Your task to perform on an android device: Open my contact list Image 0: 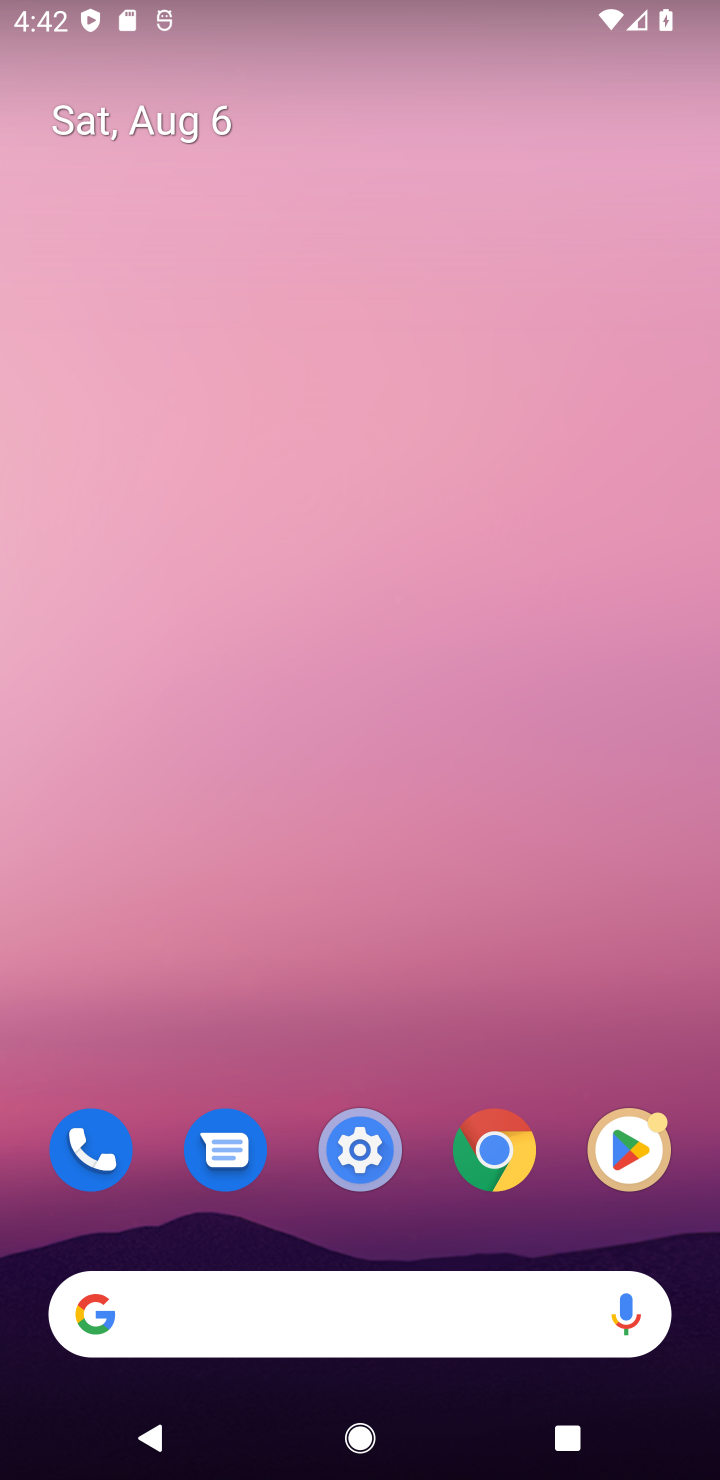
Step 0: drag from (347, 358) to (341, 183)
Your task to perform on an android device: Open my contact list Image 1: 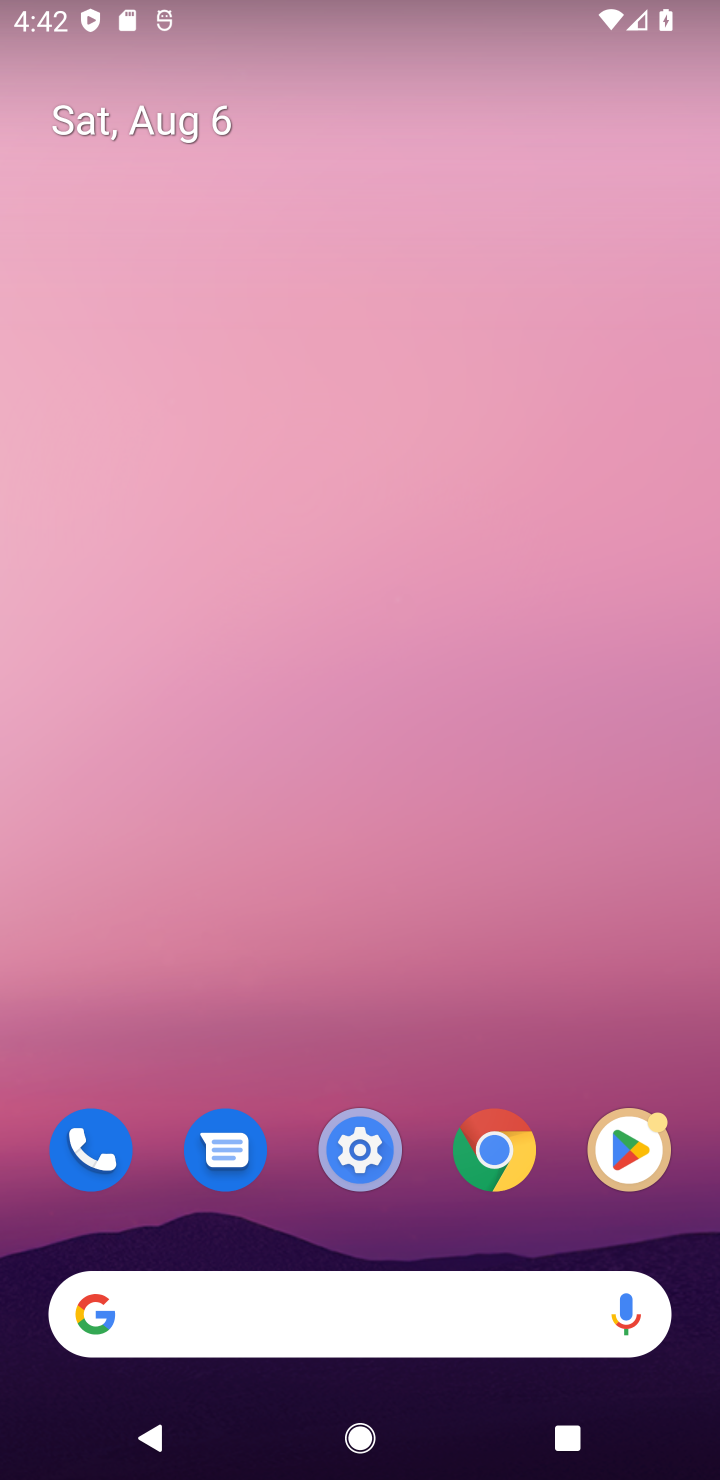
Step 1: drag from (390, 672) to (390, 126)
Your task to perform on an android device: Open my contact list Image 2: 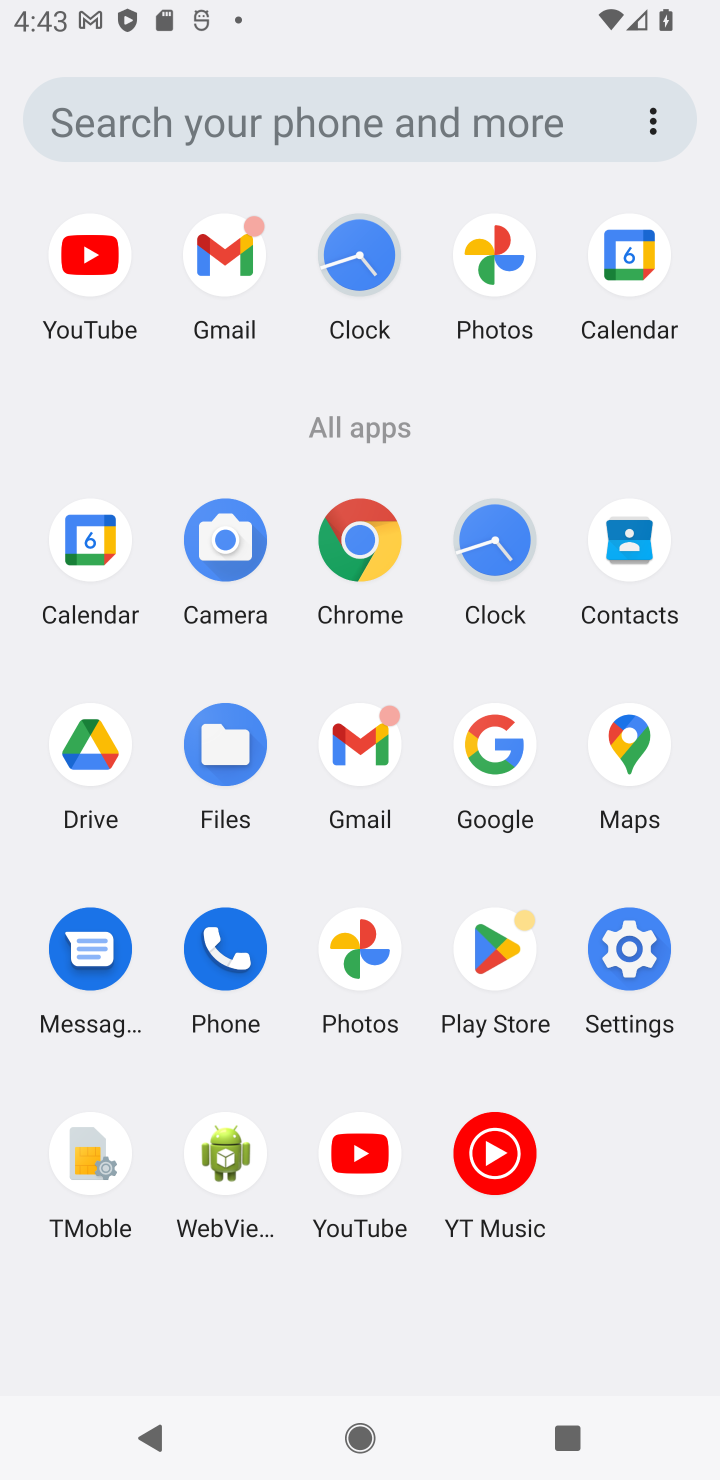
Step 2: click (651, 562)
Your task to perform on an android device: Open my contact list Image 3: 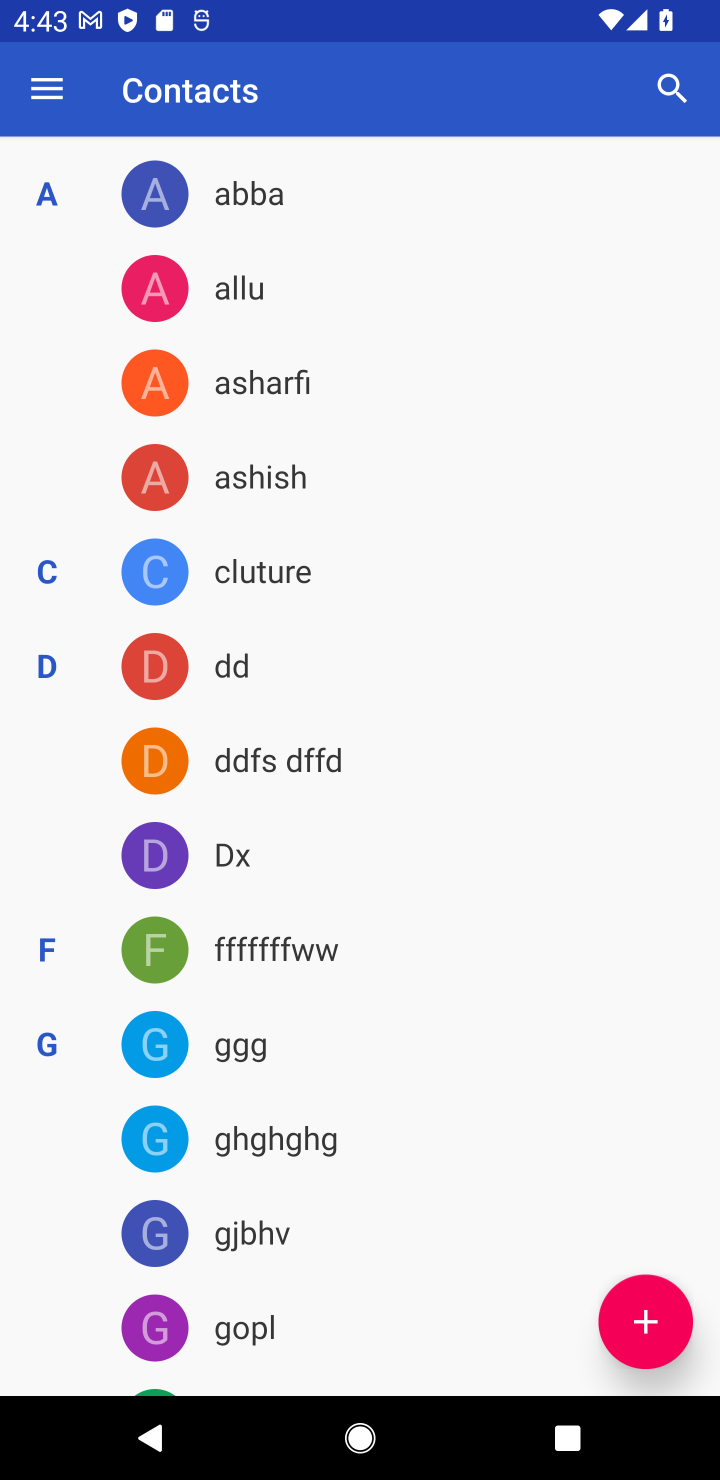
Step 3: task complete